Your task to perform on an android device: Go to Yahoo.com Image 0: 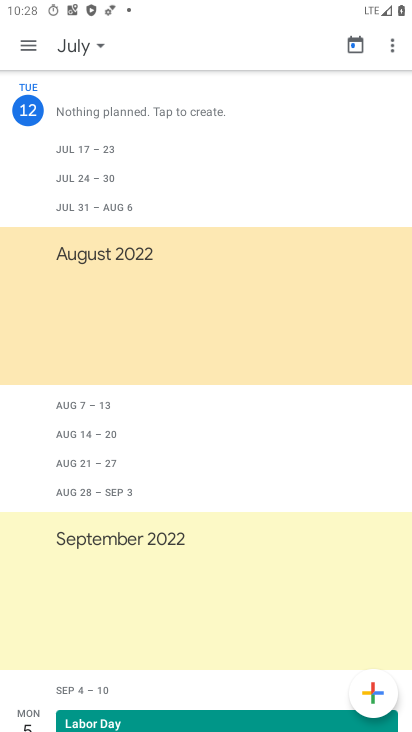
Step 0: press home button
Your task to perform on an android device: Go to Yahoo.com Image 1: 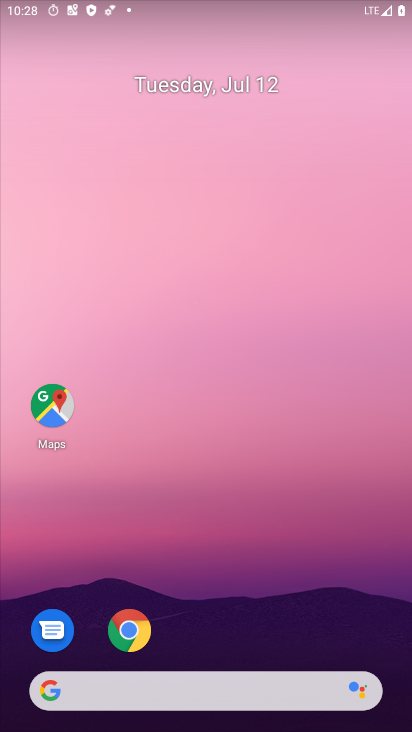
Step 1: click (130, 632)
Your task to perform on an android device: Go to Yahoo.com Image 2: 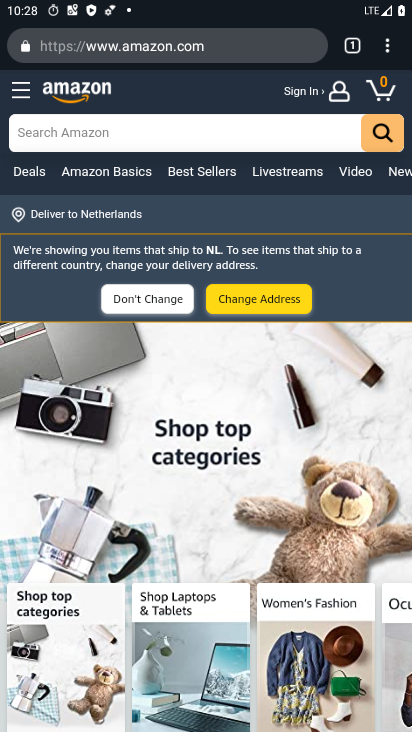
Step 2: press back button
Your task to perform on an android device: Go to Yahoo.com Image 3: 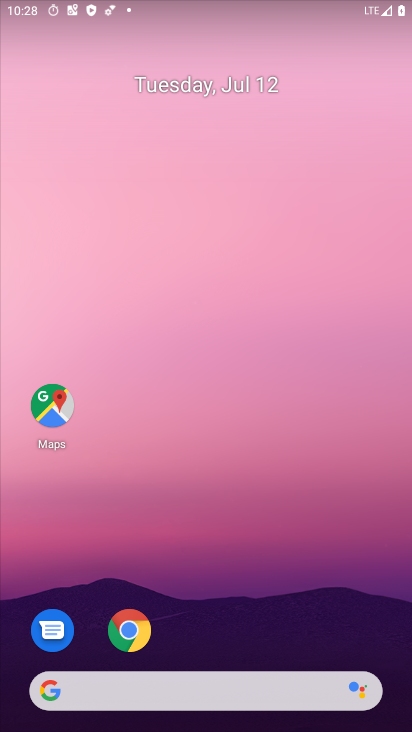
Step 3: click (124, 625)
Your task to perform on an android device: Go to Yahoo.com Image 4: 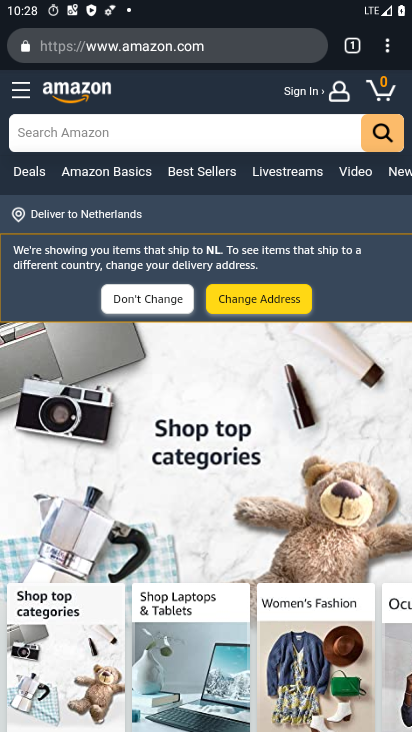
Step 4: press back button
Your task to perform on an android device: Go to Yahoo.com Image 5: 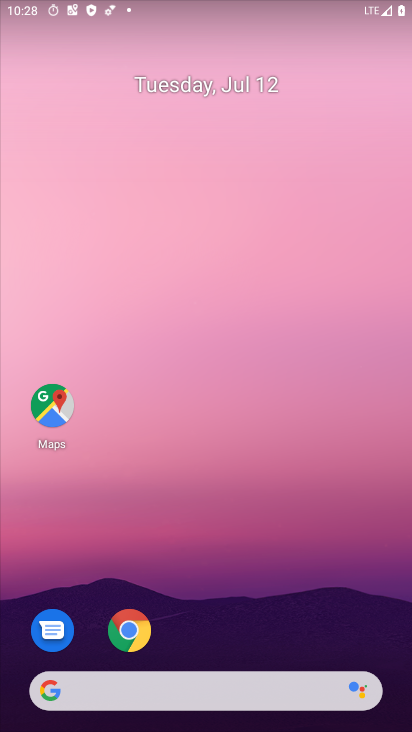
Step 5: click (132, 628)
Your task to perform on an android device: Go to Yahoo.com Image 6: 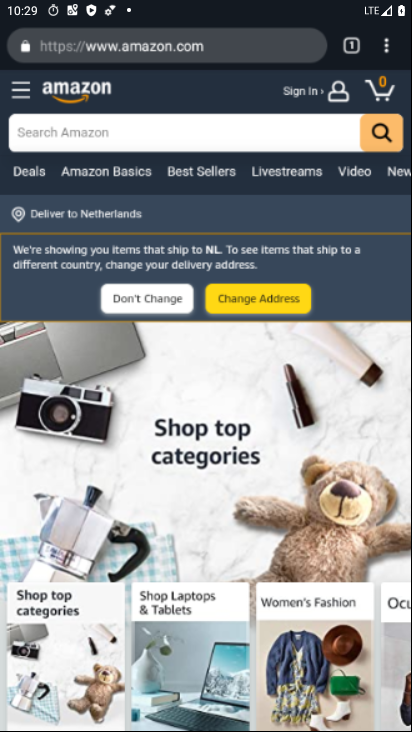
Step 6: click (352, 48)
Your task to perform on an android device: Go to Yahoo.com Image 7: 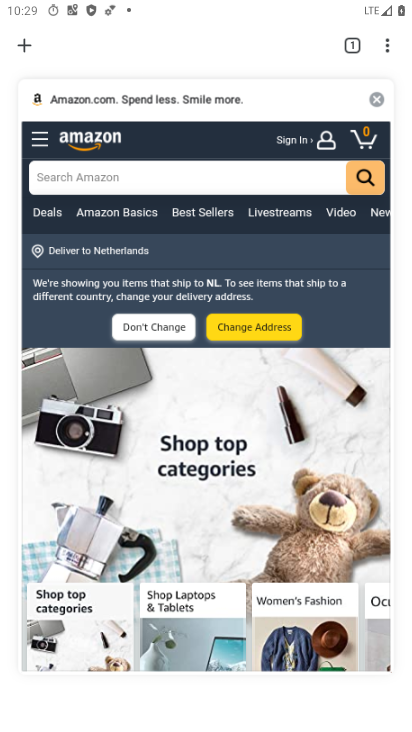
Step 7: click (24, 44)
Your task to perform on an android device: Go to Yahoo.com Image 8: 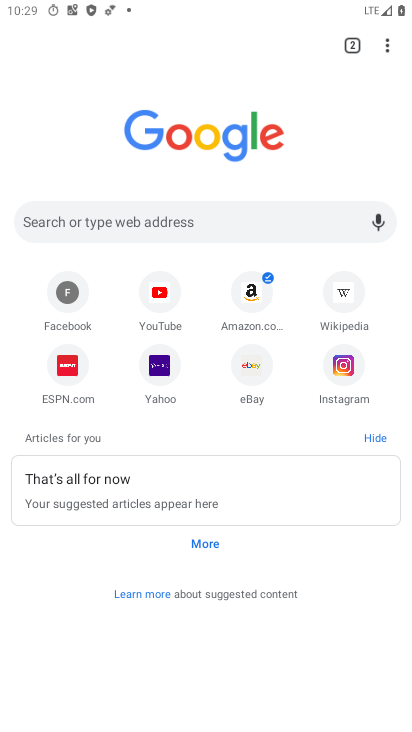
Step 8: click (146, 372)
Your task to perform on an android device: Go to Yahoo.com Image 9: 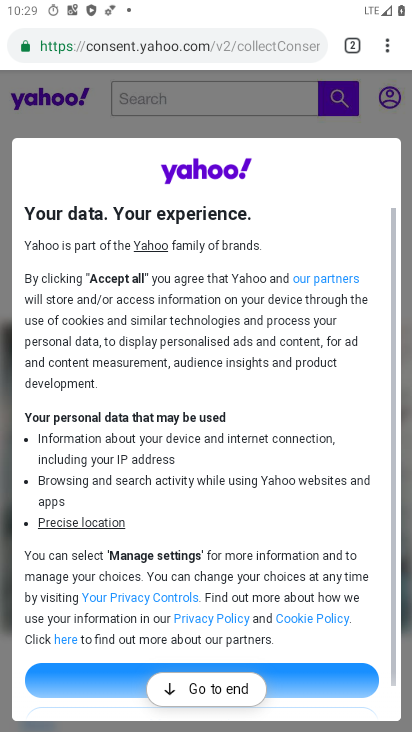
Step 9: task complete